Your task to perform on an android device: turn on the 24-hour format for clock Image 0: 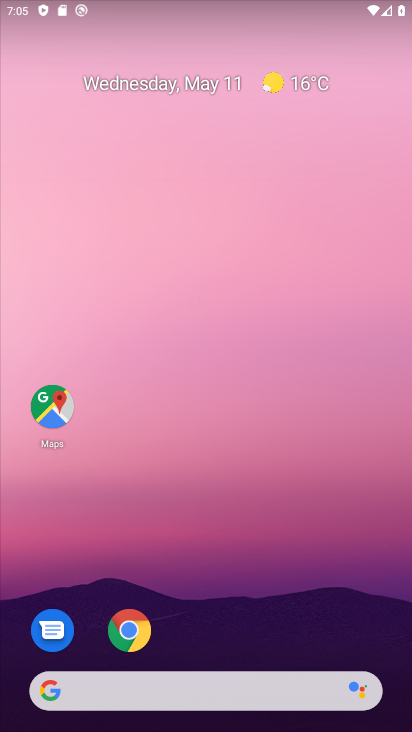
Step 0: drag from (314, 576) to (279, 76)
Your task to perform on an android device: turn on the 24-hour format for clock Image 1: 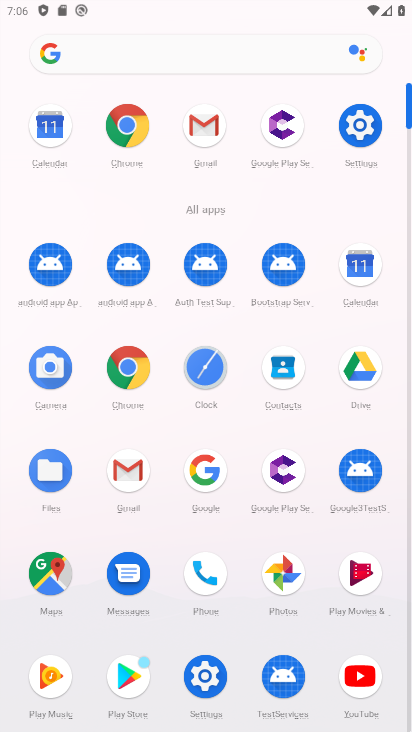
Step 1: click (202, 376)
Your task to perform on an android device: turn on the 24-hour format for clock Image 2: 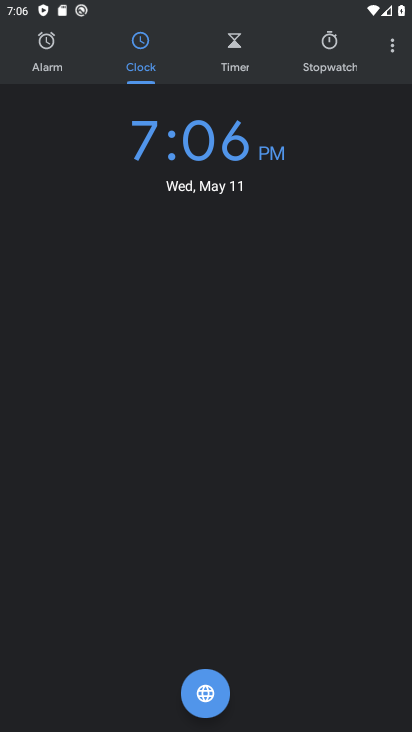
Step 2: click (392, 42)
Your task to perform on an android device: turn on the 24-hour format for clock Image 3: 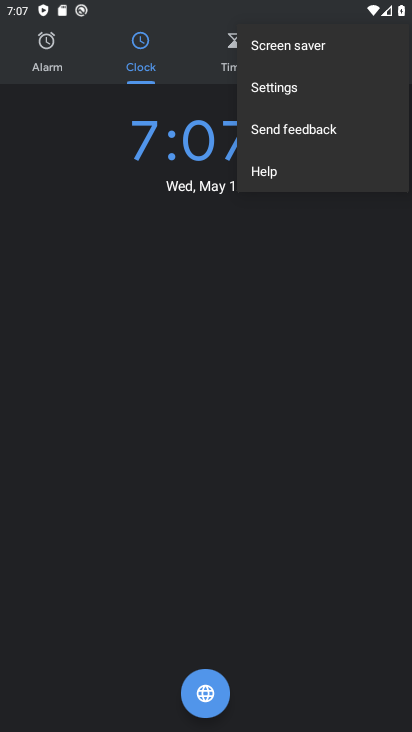
Step 3: click (285, 96)
Your task to perform on an android device: turn on the 24-hour format for clock Image 4: 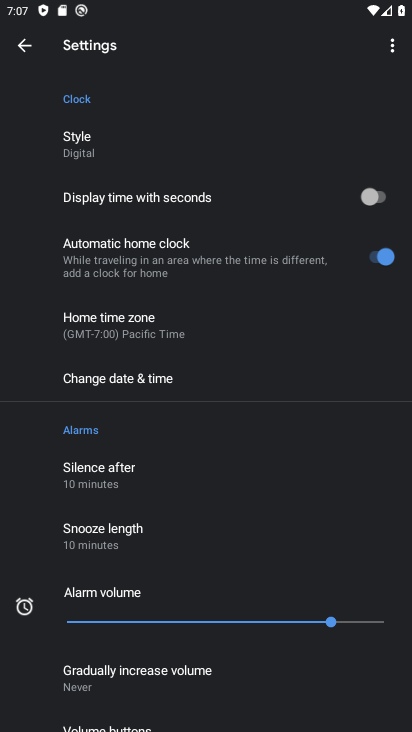
Step 4: drag from (183, 583) to (228, 85)
Your task to perform on an android device: turn on the 24-hour format for clock Image 5: 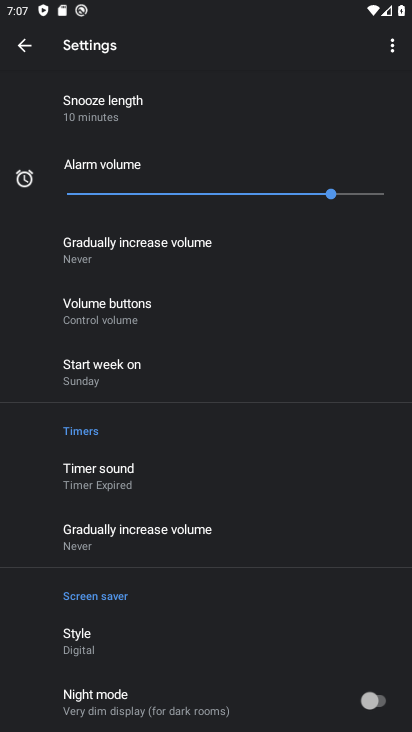
Step 5: drag from (236, 328) to (269, 597)
Your task to perform on an android device: turn on the 24-hour format for clock Image 6: 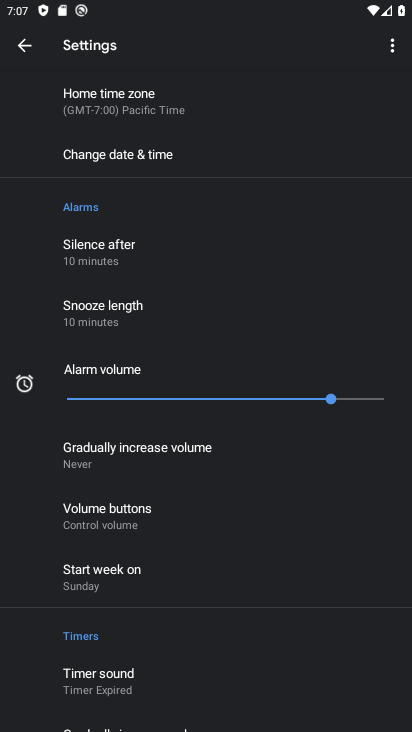
Step 6: click (126, 149)
Your task to perform on an android device: turn on the 24-hour format for clock Image 7: 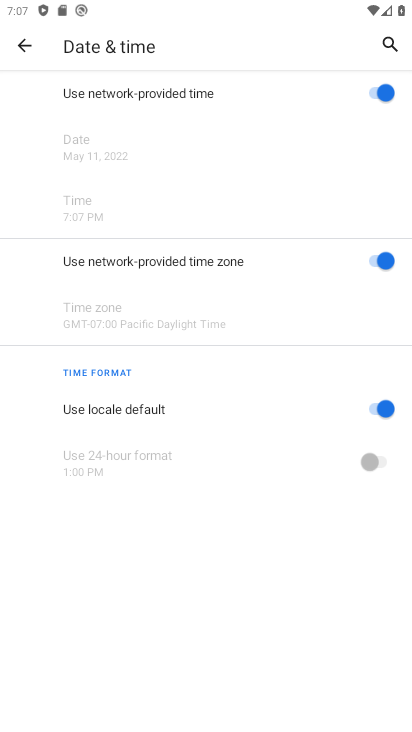
Step 7: click (374, 411)
Your task to perform on an android device: turn on the 24-hour format for clock Image 8: 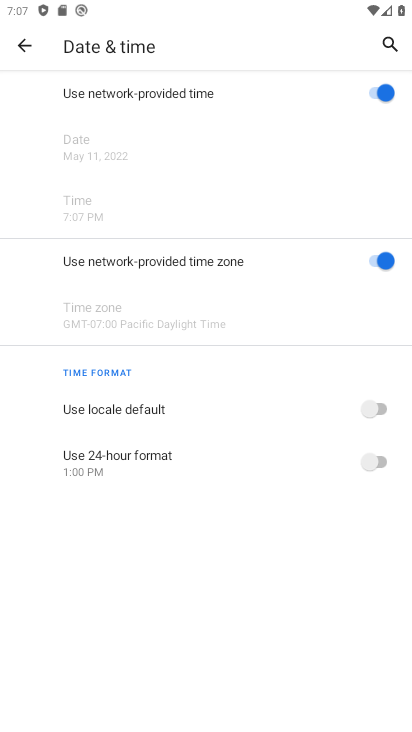
Step 8: click (393, 482)
Your task to perform on an android device: turn on the 24-hour format for clock Image 9: 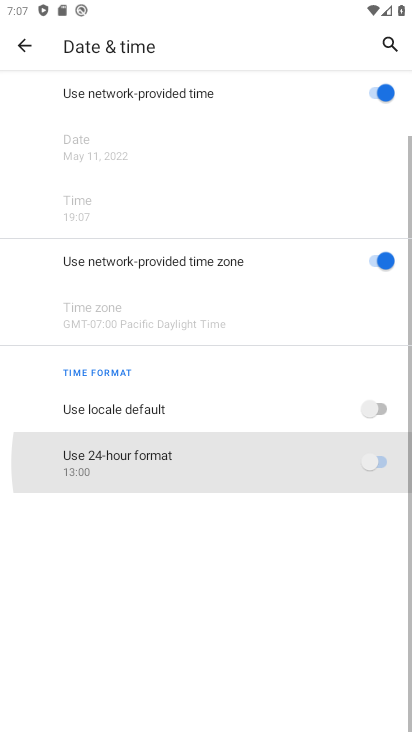
Step 9: click (366, 453)
Your task to perform on an android device: turn on the 24-hour format for clock Image 10: 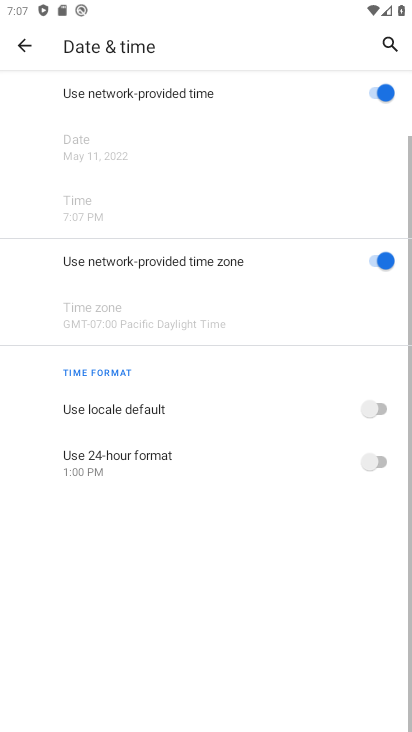
Step 10: task complete